Your task to perform on an android device: check the backup settings in the google photos Image 0: 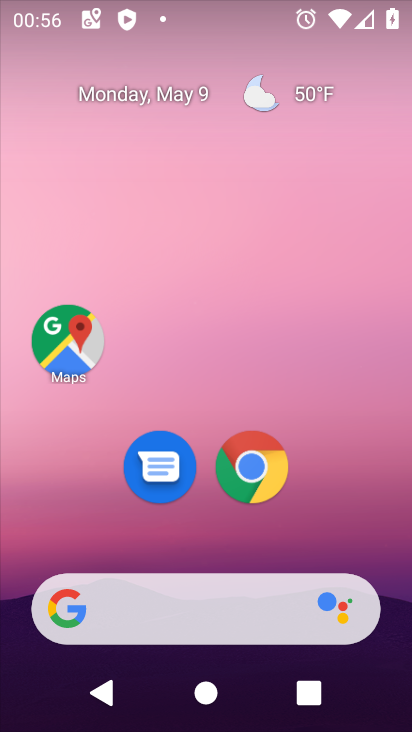
Step 0: drag from (213, 550) to (208, 87)
Your task to perform on an android device: check the backup settings in the google photos Image 1: 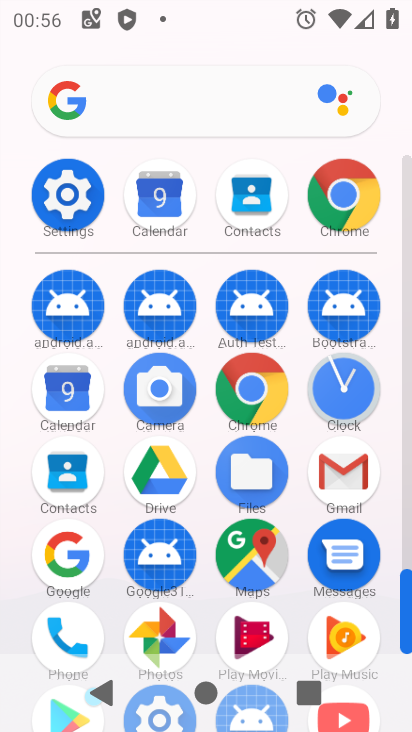
Step 1: click (158, 634)
Your task to perform on an android device: check the backup settings in the google photos Image 2: 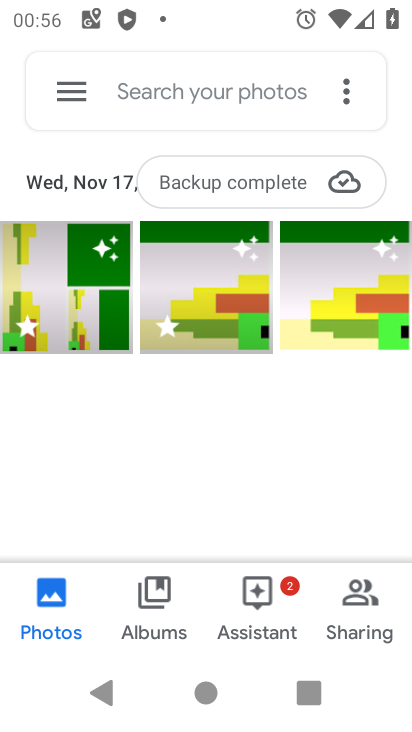
Step 2: click (67, 93)
Your task to perform on an android device: check the backup settings in the google photos Image 3: 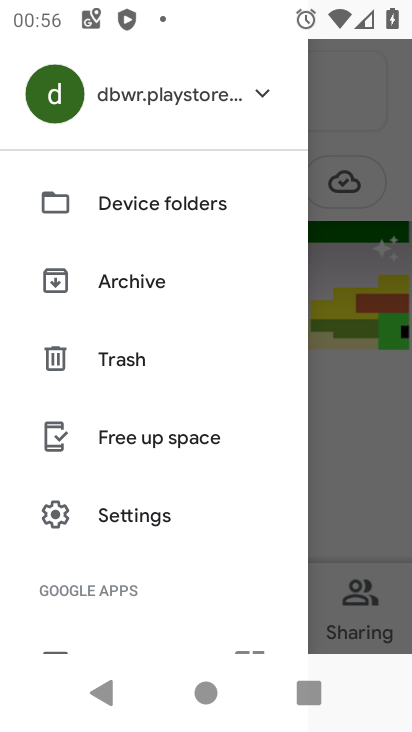
Step 3: click (129, 518)
Your task to perform on an android device: check the backup settings in the google photos Image 4: 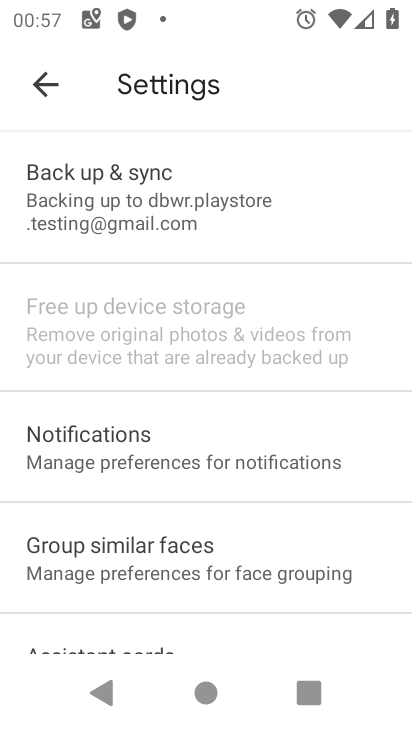
Step 4: click (117, 176)
Your task to perform on an android device: check the backup settings in the google photos Image 5: 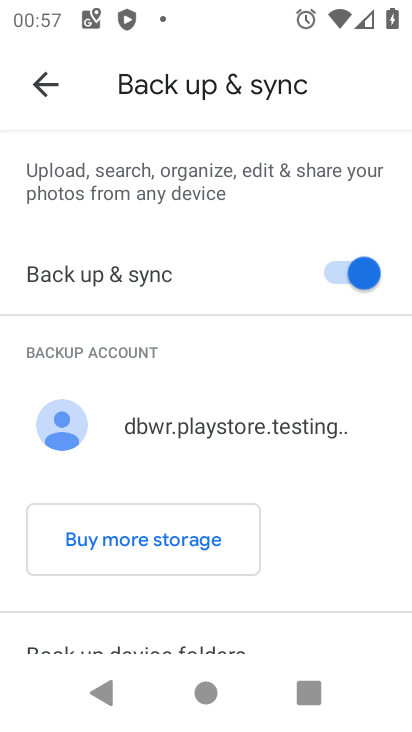
Step 5: task complete